Your task to perform on an android device: Go to Google Image 0: 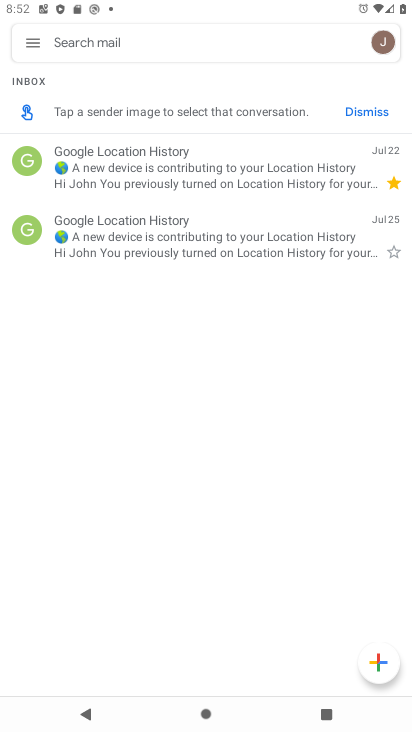
Step 0: press home button
Your task to perform on an android device: Go to Google Image 1: 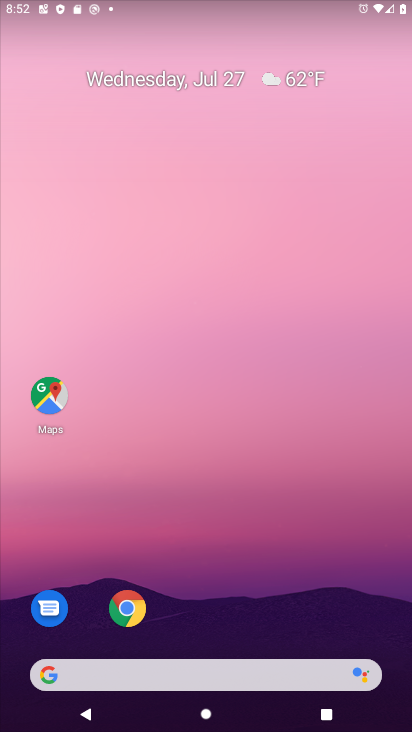
Step 1: click (291, 673)
Your task to perform on an android device: Go to Google Image 2: 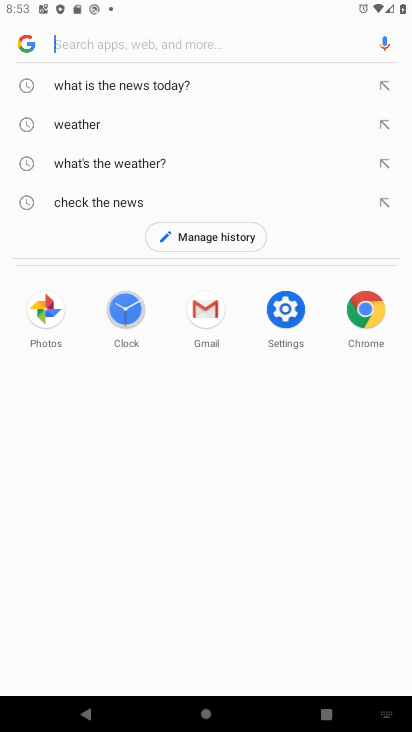
Step 2: task complete